Your task to perform on an android device: Clear the cart on walmart. Image 0: 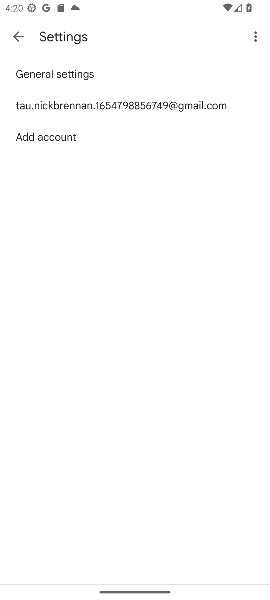
Step 0: press home button
Your task to perform on an android device: Clear the cart on walmart. Image 1: 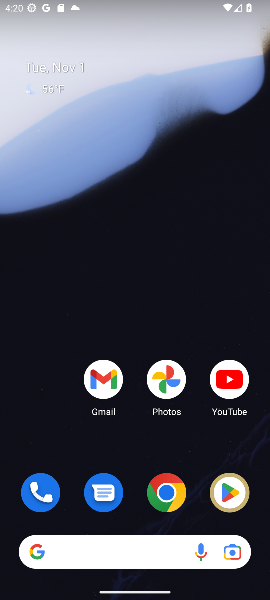
Step 1: click (167, 492)
Your task to perform on an android device: Clear the cart on walmart. Image 2: 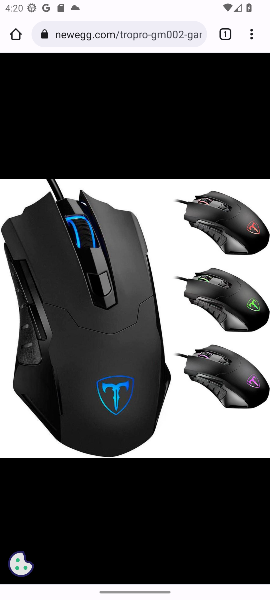
Step 2: click (167, 491)
Your task to perform on an android device: Clear the cart on walmart. Image 3: 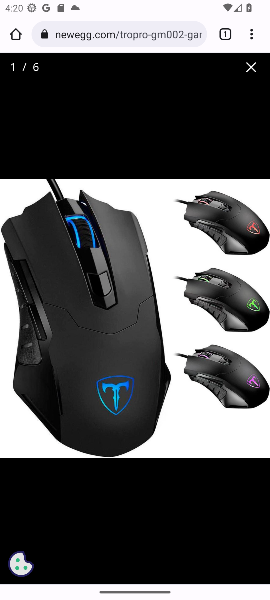
Step 3: click (142, 42)
Your task to perform on an android device: Clear the cart on walmart. Image 4: 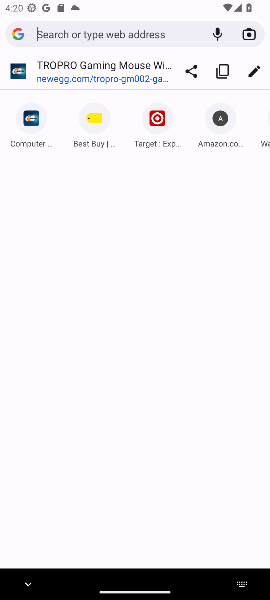
Step 4: type " walmart"
Your task to perform on an android device: Clear the cart on walmart. Image 5: 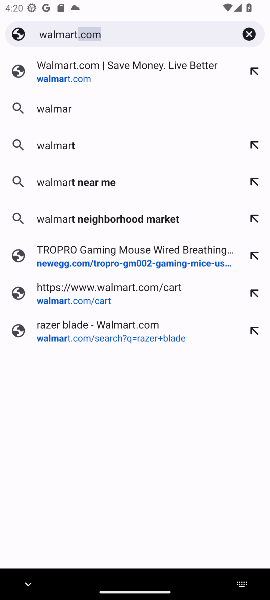
Step 5: type ""
Your task to perform on an android device: Clear the cart on walmart. Image 6: 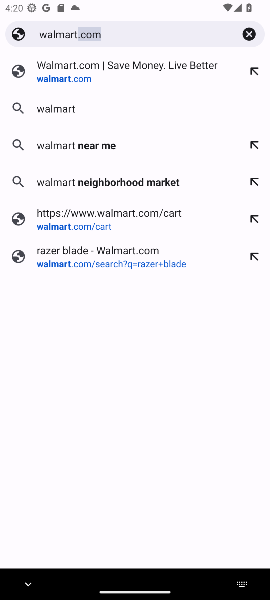
Step 6: press enter
Your task to perform on an android device: Clear the cart on walmart. Image 7: 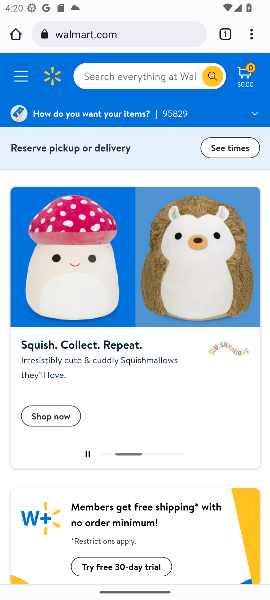
Step 7: click (252, 93)
Your task to perform on an android device: Clear the cart on walmart. Image 8: 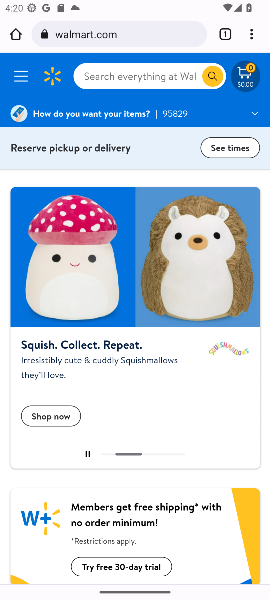
Step 8: click (252, 88)
Your task to perform on an android device: Clear the cart on walmart. Image 9: 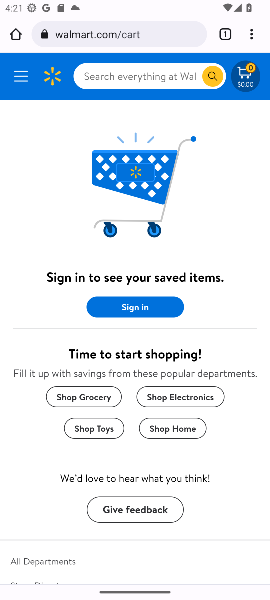
Step 9: drag from (194, 480) to (193, 276)
Your task to perform on an android device: Clear the cart on walmart. Image 10: 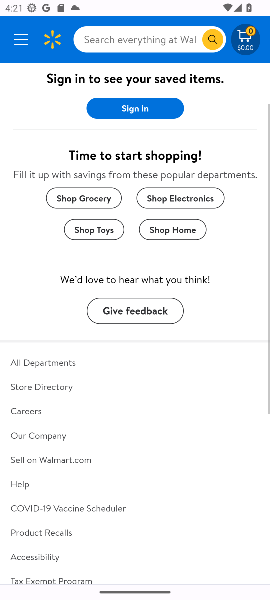
Step 10: drag from (231, 410) to (205, 240)
Your task to perform on an android device: Clear the cart on walmart. Image 11: 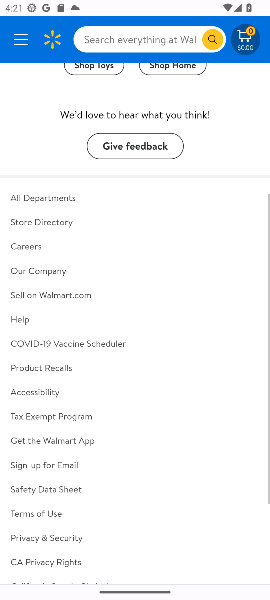
Step 11: drag from (184, 391) to (163, 208)
Your task to perform on an android device: Clear the cart on walmart. Image 12: 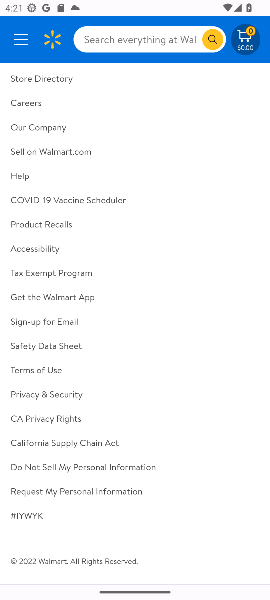
Step 12: drag from (177, 354) to (162, 206)
Your task to perform on an android device: Clear the cart on walmart. Image 13: 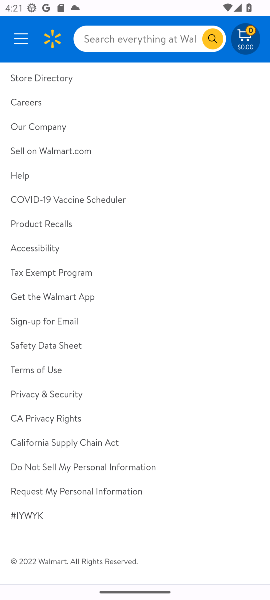
Step 13: drag from (193, 328) to (179, 199)
Your task to perform on an android device: Clear the cart on walmart. Image 14: 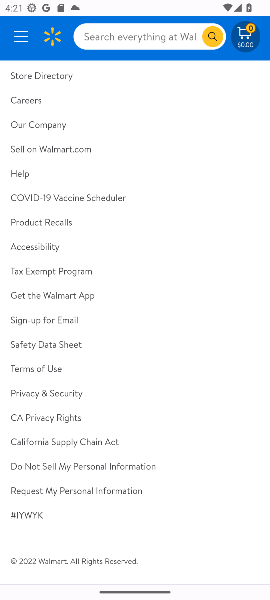
Step 14: drag from (162, 377) to (120, 189)
Your task to perform on an android device: Clear the cart on walmart. Image 15: 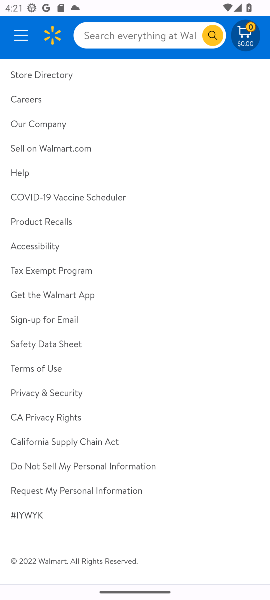
Step 15: drag from (117, 353) to (114, 172)
Your task to perform on an android device: Clear the cart on walmart. Image 16: 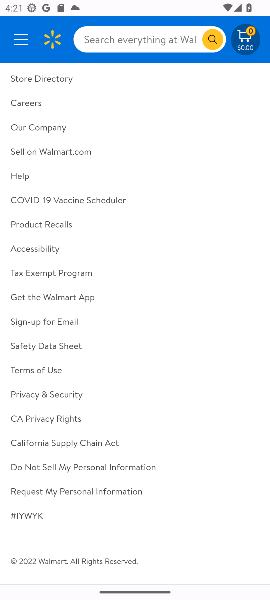
Step 16: press back button
Your task to perform on an android device: Clear the cart on walmart. Image 17: 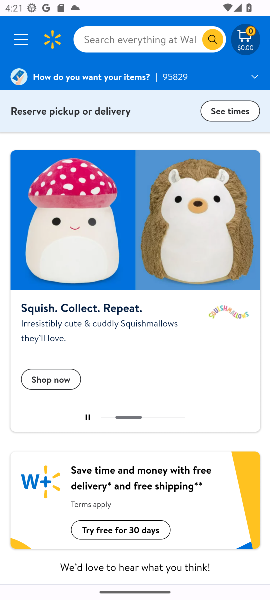
Step 17: click (250, 35)
Your task to perform on an android device: Clear the cart on walmart. Image 18: 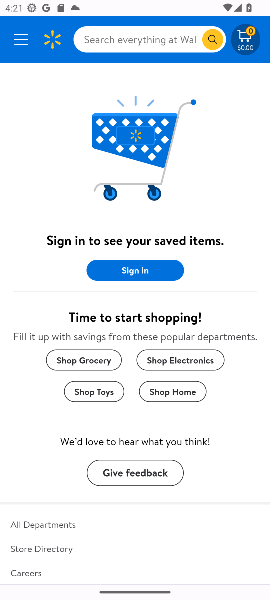
Step 18: task complete